Your task to perform on an android device: change your default location settings in chrome Image 0: 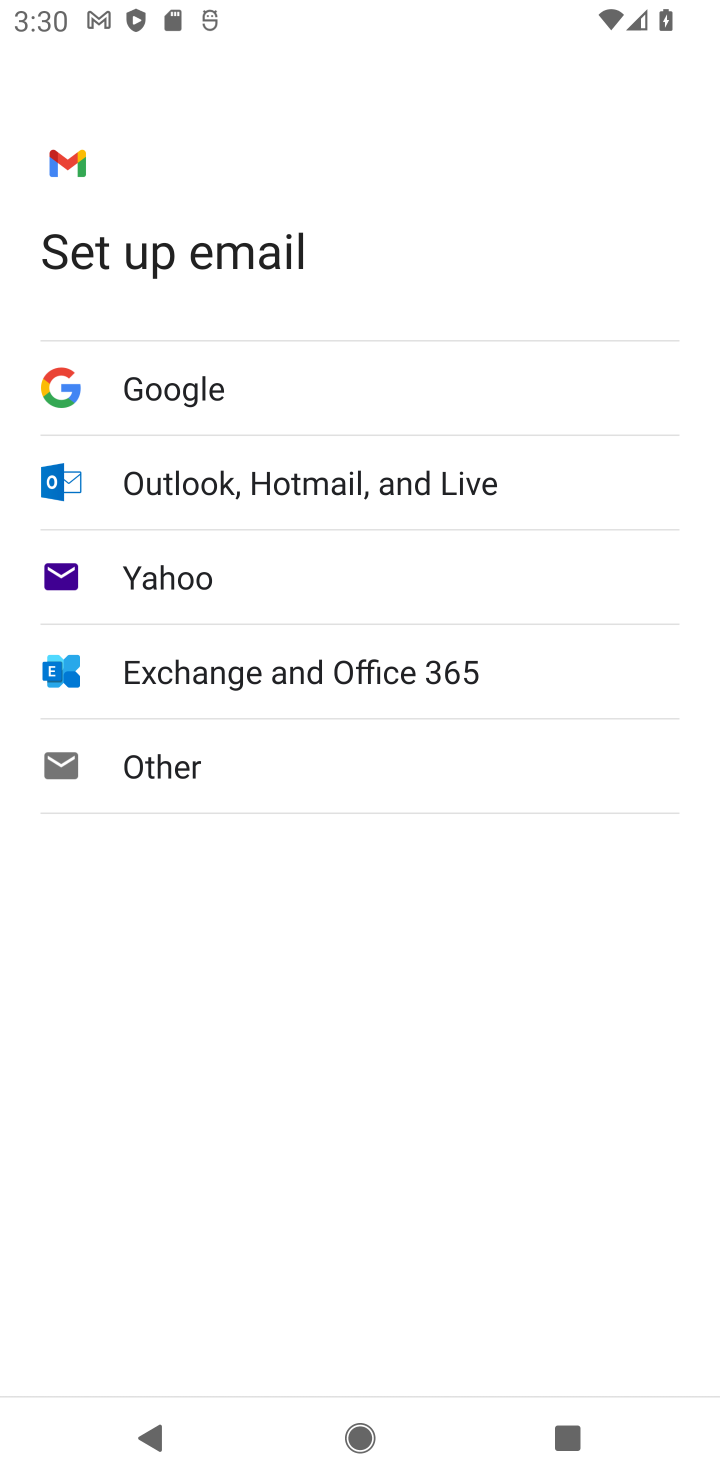
Step 0: press home button
Your task to perform on an android device: change your default location settings in chrome Image 1: 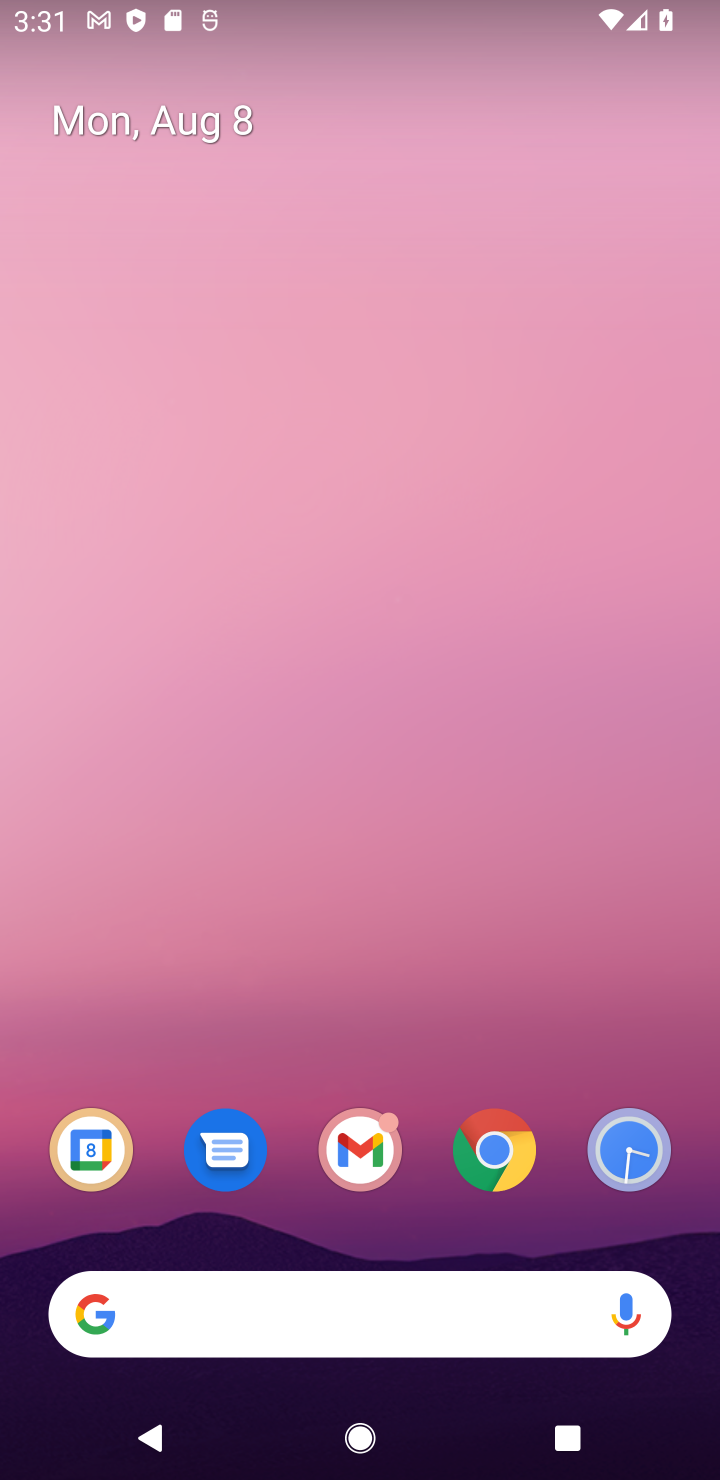
Step 1: drag from (461, 1207) to (473, 216)
Your task to perform on an android device: change your default location settings in chrome Image 2: 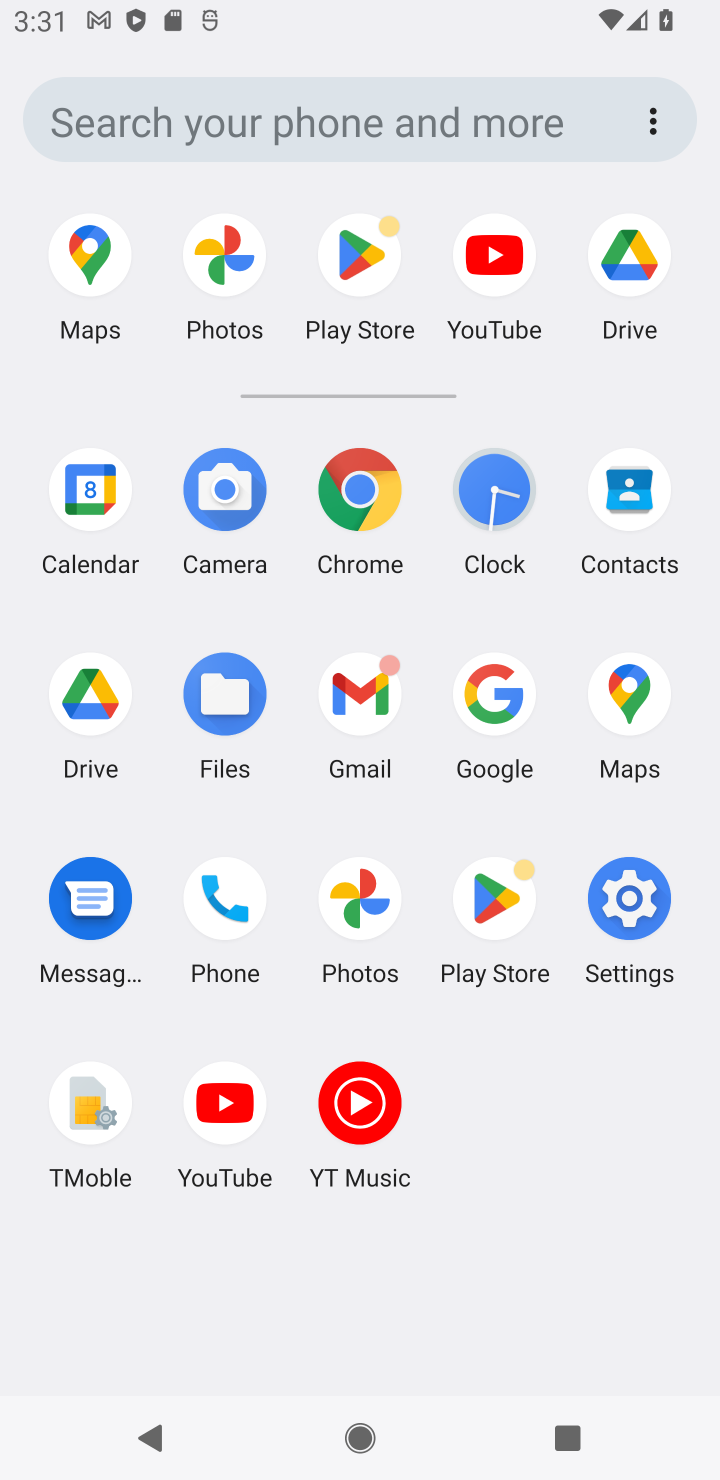
Step 2: click (365, 529)
Your task to perform on an android device: change your default location settings in chrome Image 3: 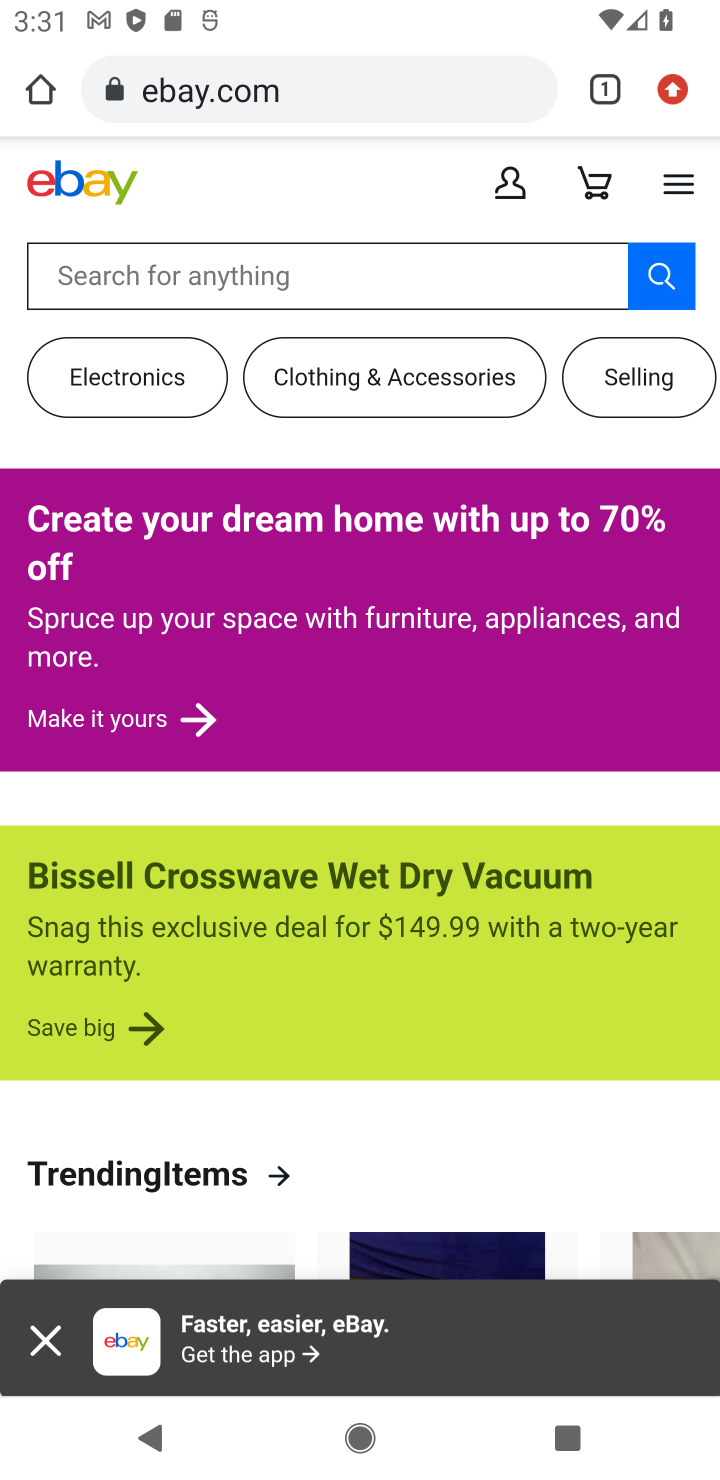
Step 3: click (651, 88)
Your task to perform on an android device: change your default location settings in chrome Image 4: 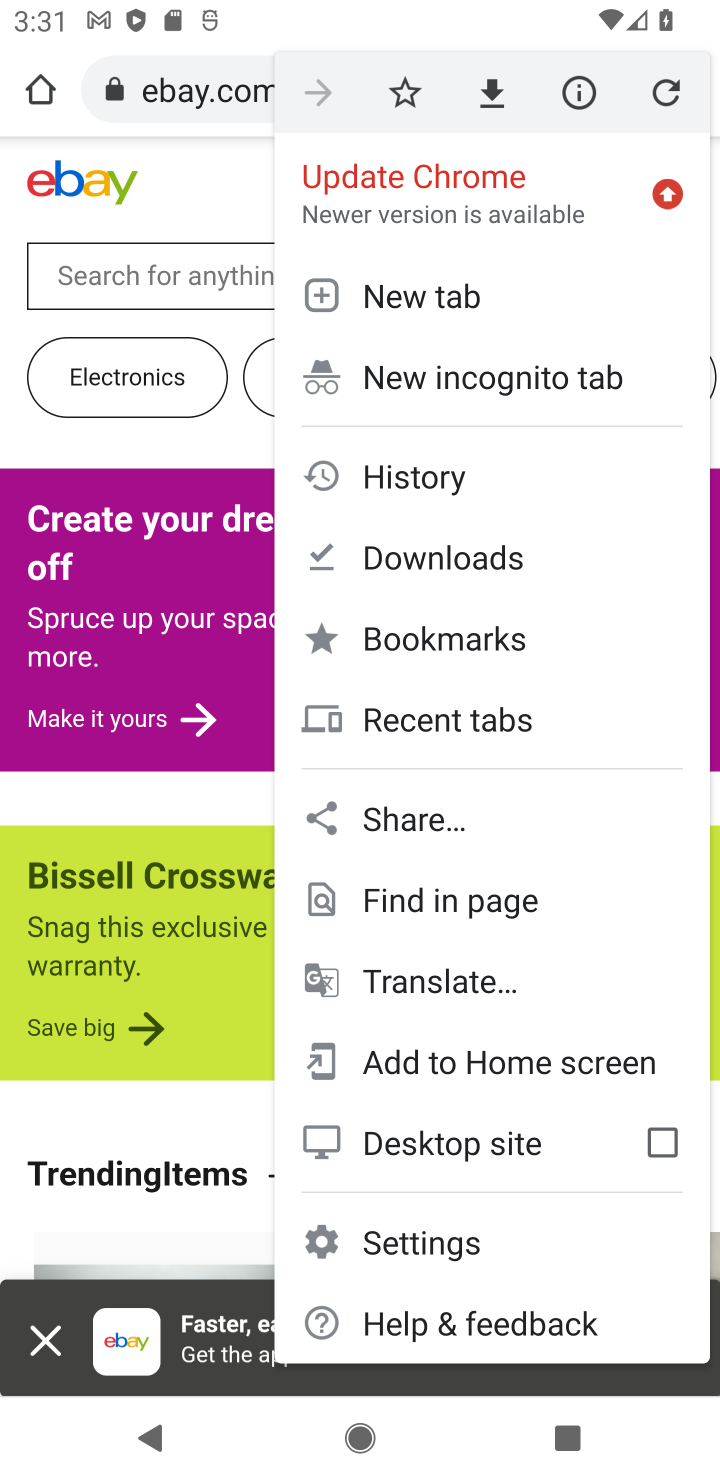
Step 4: click (428, 1231)
Your task to perform on an android device: change your default location settings in chrome Image 5: 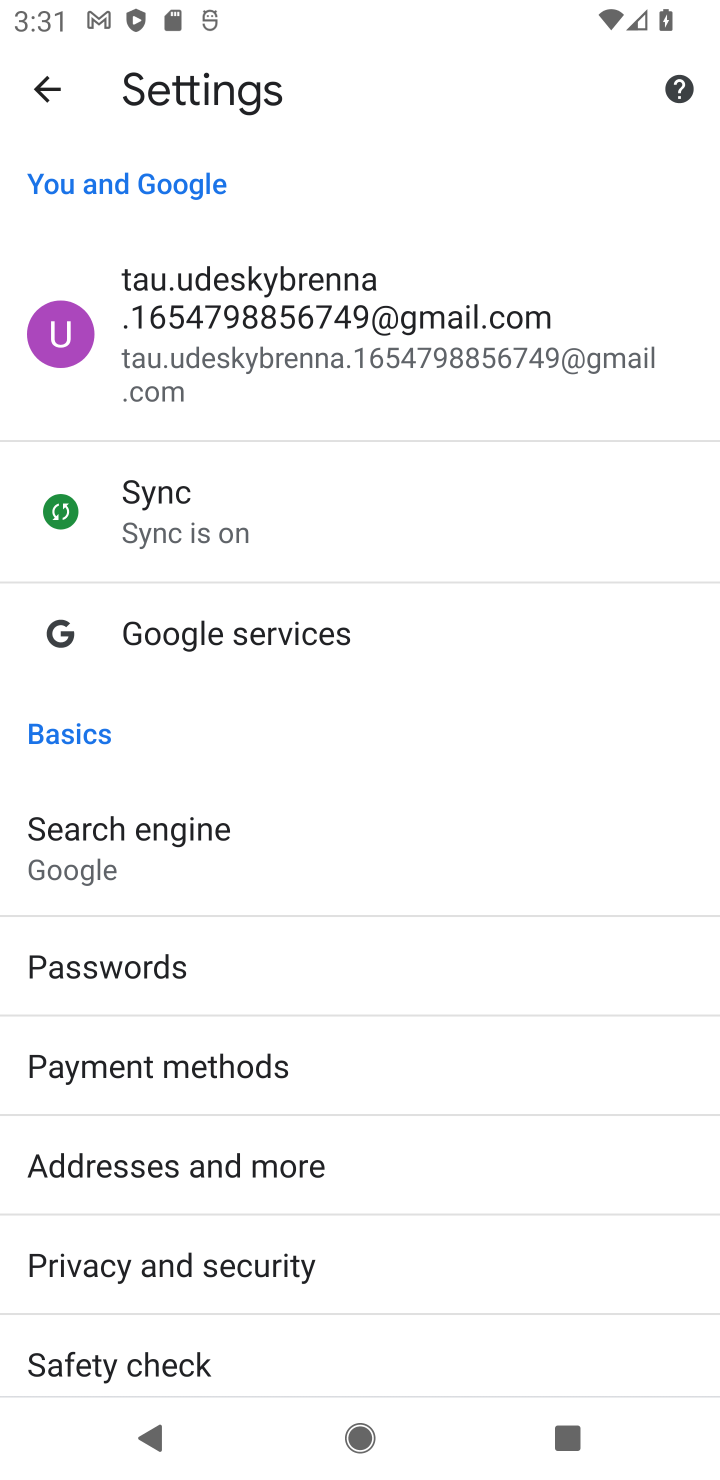
Step 5: task complete